Your task to perform on an android device: Open maps Image 0: 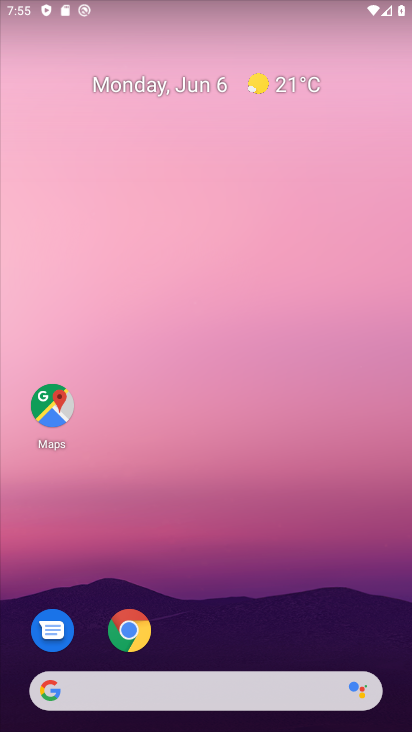
Step 0: click (60, 407)
Your task to perform on an android device: Open maps Image 1: 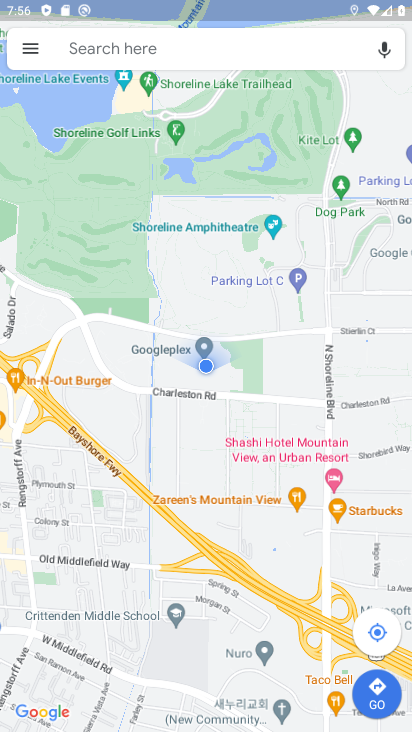
Step 1: task complete